Your task to perform on an android device: Open Amazon Image 0: 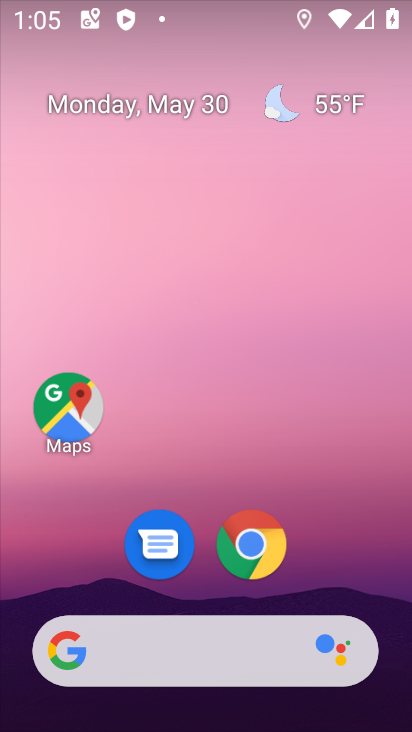
Step 0: click (265, 544)
Your task to perform on an android device: Open Amazon Image 1: 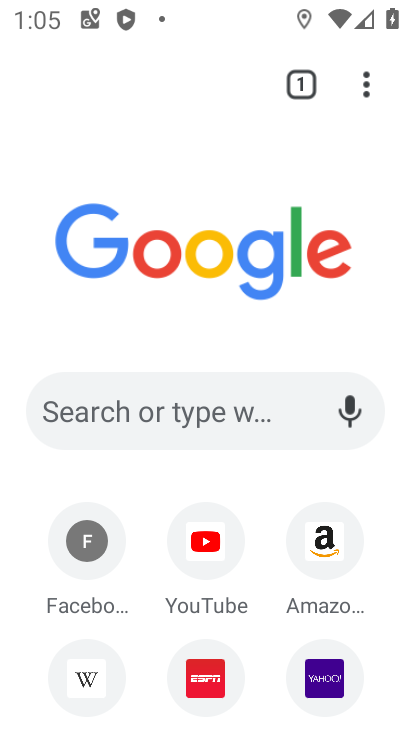
Step 1: click (313, 549)
Your task to perform on an android device: Open Amazon Image 2: 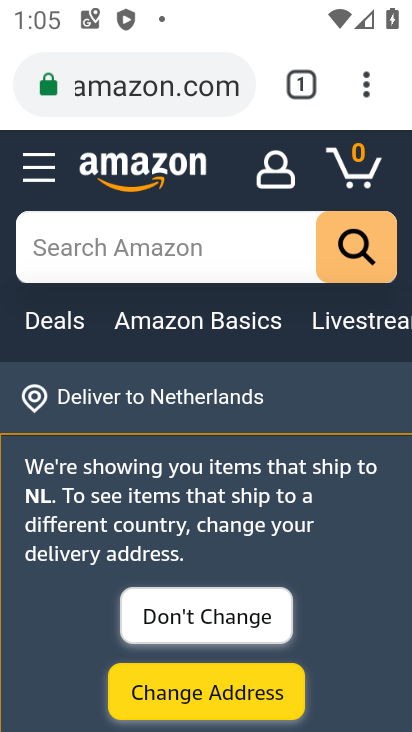
Step 2: task complete